Your task to perform on an android device: open sync settings in chrome Image 0: 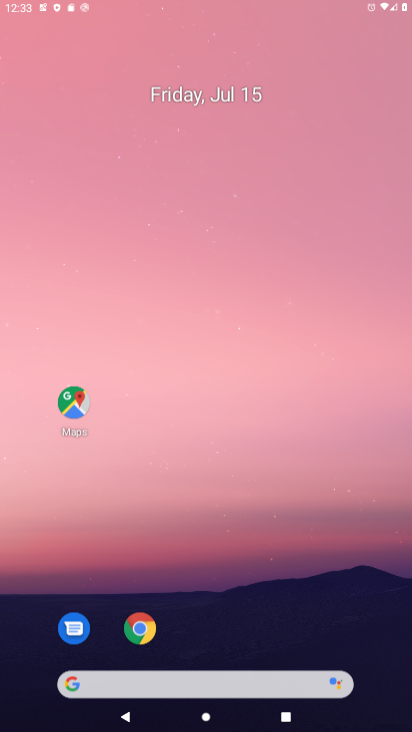
Step 0: press home button
Your task to perform on an android device: open sync settings in chrome Image 1: 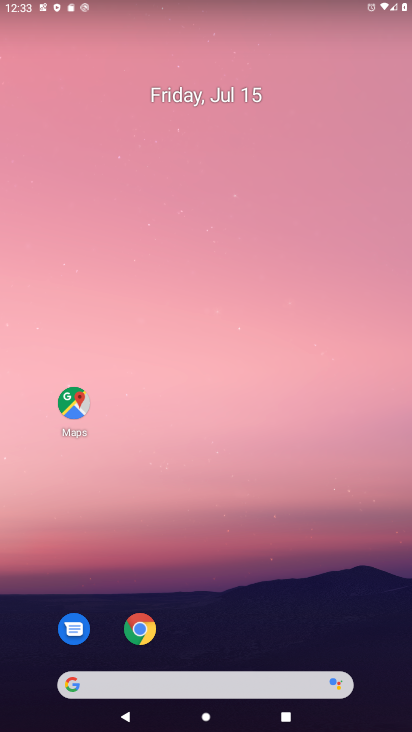
Step 1: drag from (263, 630) to (251, 37)
Your task to perform on an android device: open sync settings in chrome Image 2: 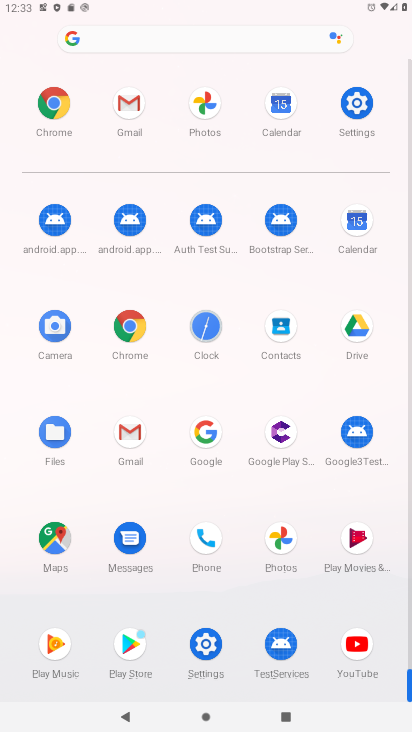
Step 2: click (50, 107)
Your task to perform on an android device: open sync settings in chrome Image 3: 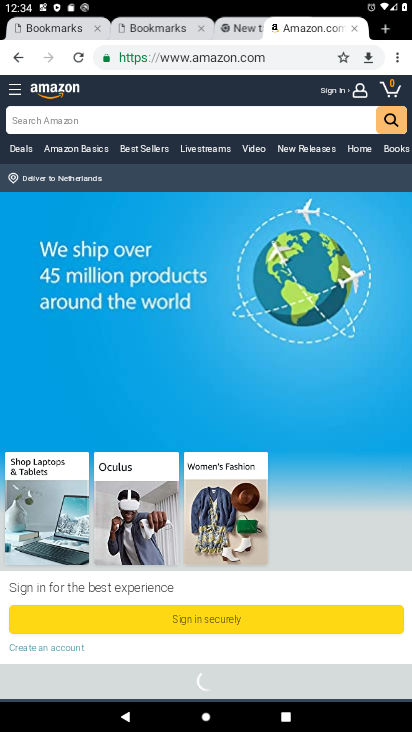
Step 3: drag from (396, 54) to (275, 387)
Your task to perform on an android device: open sync settings in chrome Image 4: 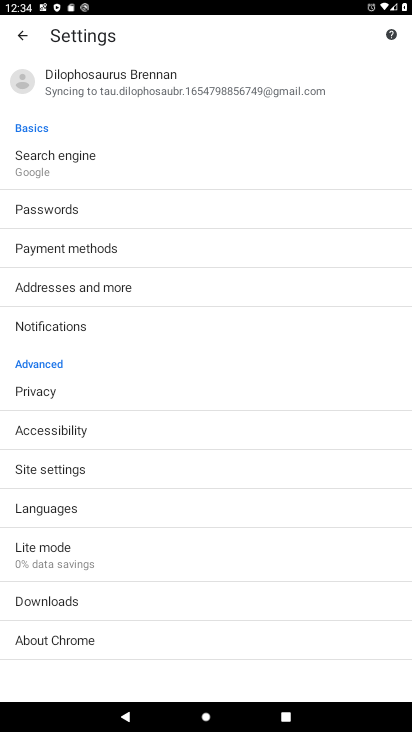
Step 4: click (77, 81)
Your task to perform on an android device: open sync settings in chrome Image 5: 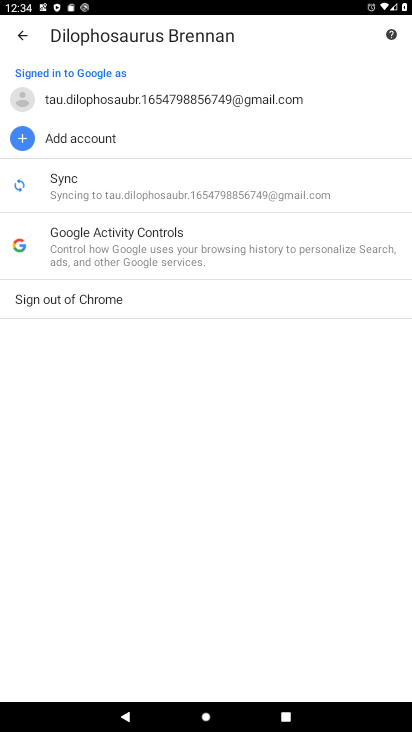
Step 5: click (69, 197)
Your task to perform on an android device: open sync settings in chrome Image 6: 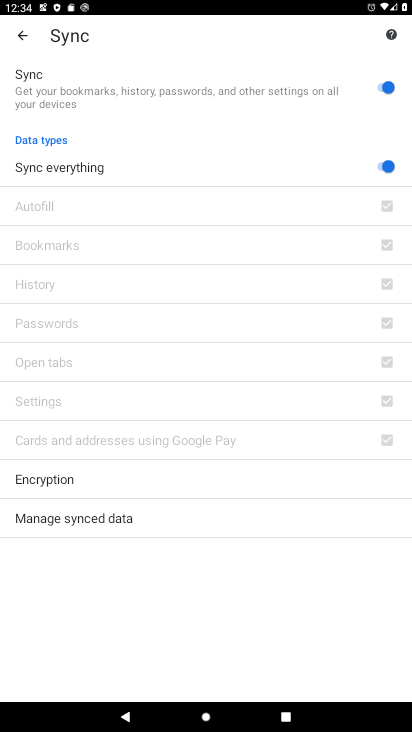
Step 6: task complete